Your task to perform on an android device: turn off priority inbox in the gmail app Image 0: 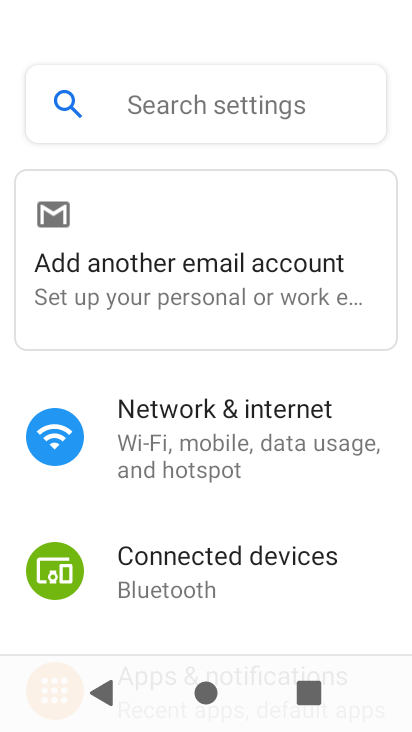
Step 0: press home button
Your task to perform on an android device: turn off priority inbox in the gmail app Image 1: 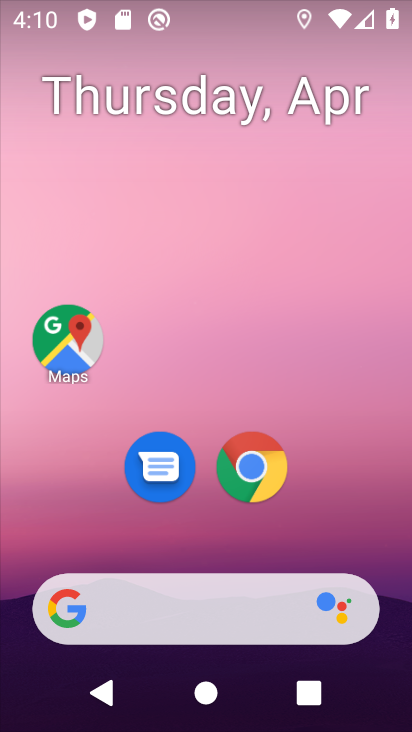
Step 1: drag from (221, 448) to (227, 55)
Your task to perform on an android device: turn off priority inbox in the gmail app Image 2: 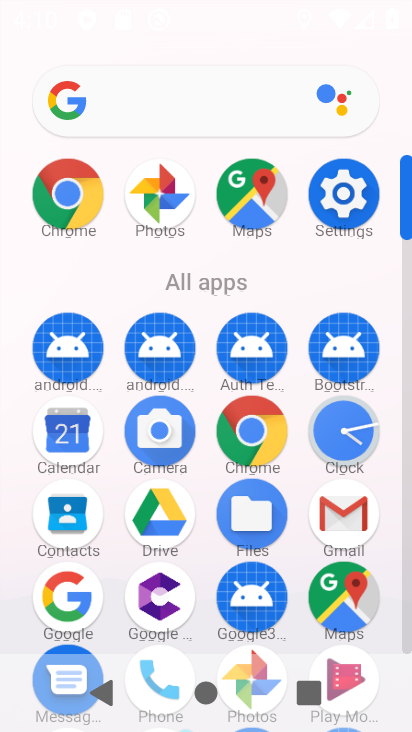
Step 2: click (338, 504)
Your task to perform on an android device: turn off priority inbox in the gmail app Image 3: 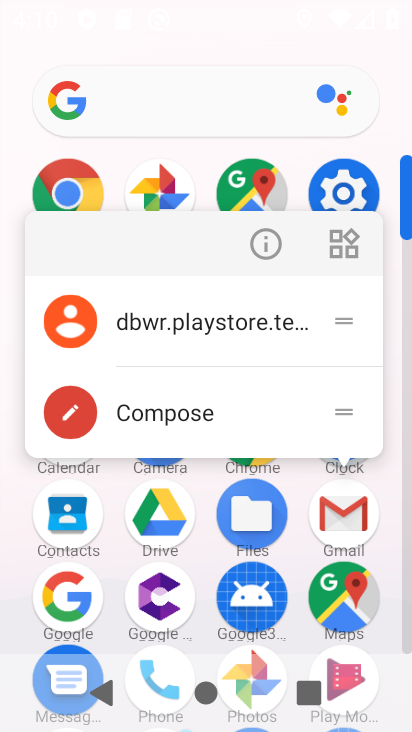
Step 3: click (328, 509)
Your task to perform on an android device: turn off priority inbox in the gmail app Image 4: 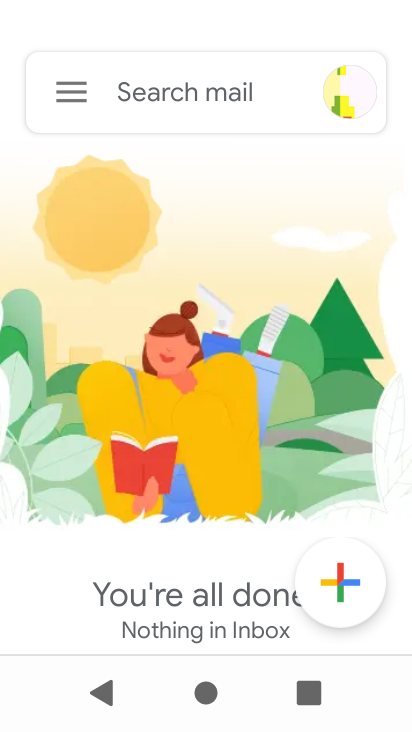
Step 4: click (50, 105)
Your task to perform on an android device: turn off priority inbox in the gmail app Image 5: 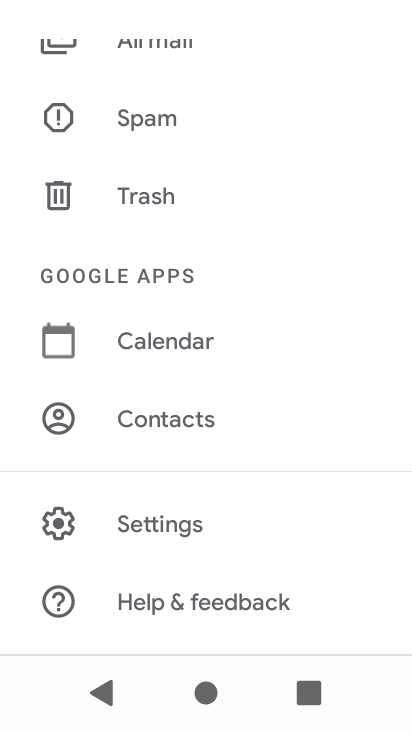
Step 5: click (141, 520)
Your task to perform on an android device: turn off priority inbox in the gmail app Image 6: 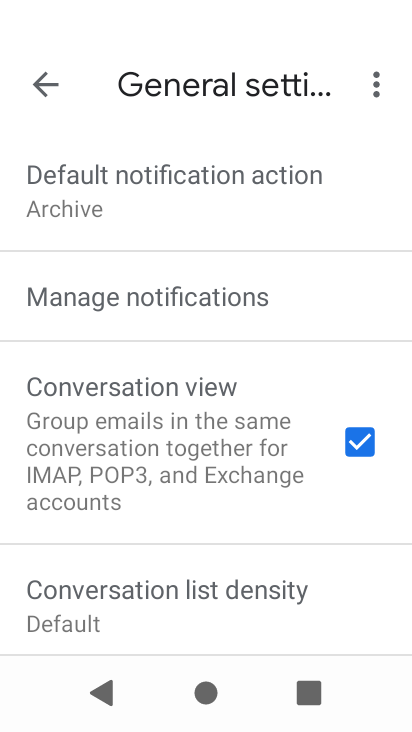
Step 6: click (41, 93)
Your task to perform on an android device: turn off priority inbox in the gmail app Image 7: 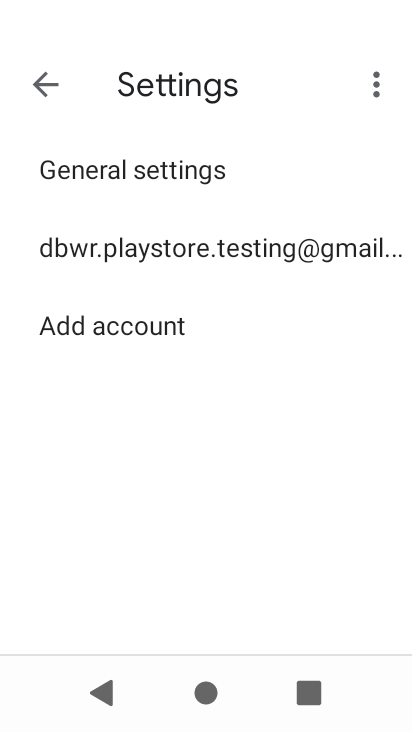
Step 7: click (153, 257)
Your task to perform on an android device: turn off priority inbox in the gmail app Image 8: 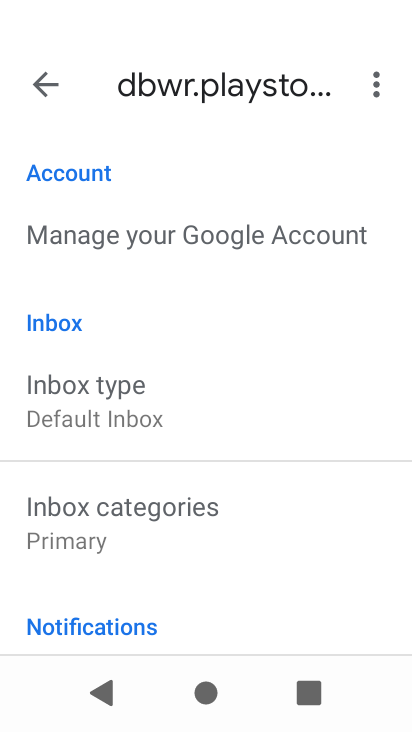
Step 8: click (129, 410)
Your task to perform on an android device: turn off priority inbox in the gmail app Image 9: 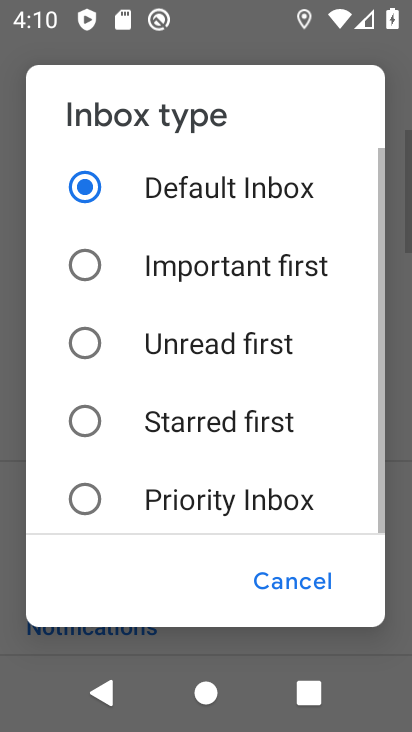
Step 9: click (143, 493)
Your task to perform on an android device: turn off priority inbox in the gmail app Image 10: 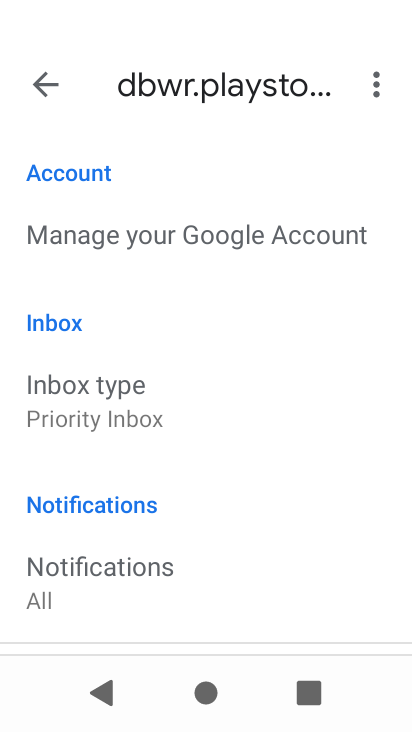
Step 10: task complete